Your task to perform on an android device: Go to battery settings Image 0: 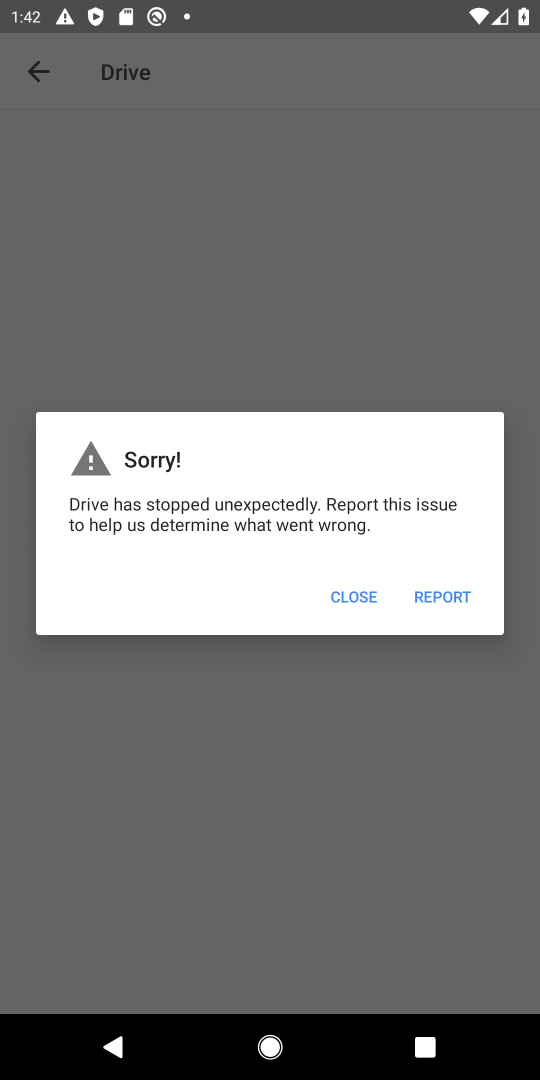
Step 0: press home button
Your task to perform on an android device: Go to battery settings Image 1: 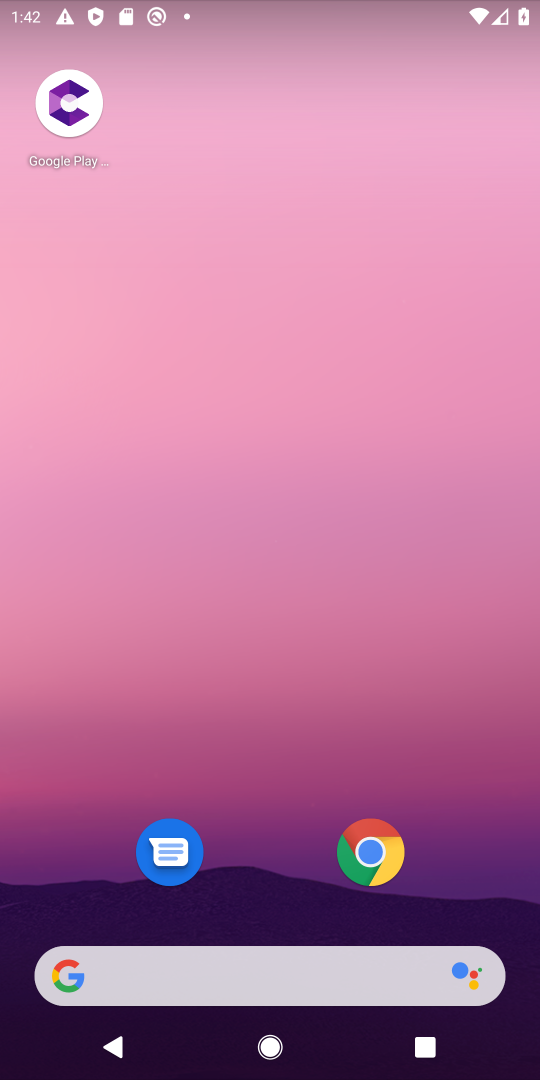
Step 1: drag from (231, 764) to (181, 305)
Your task to perform on an android device: Go to battery settings Image 2: 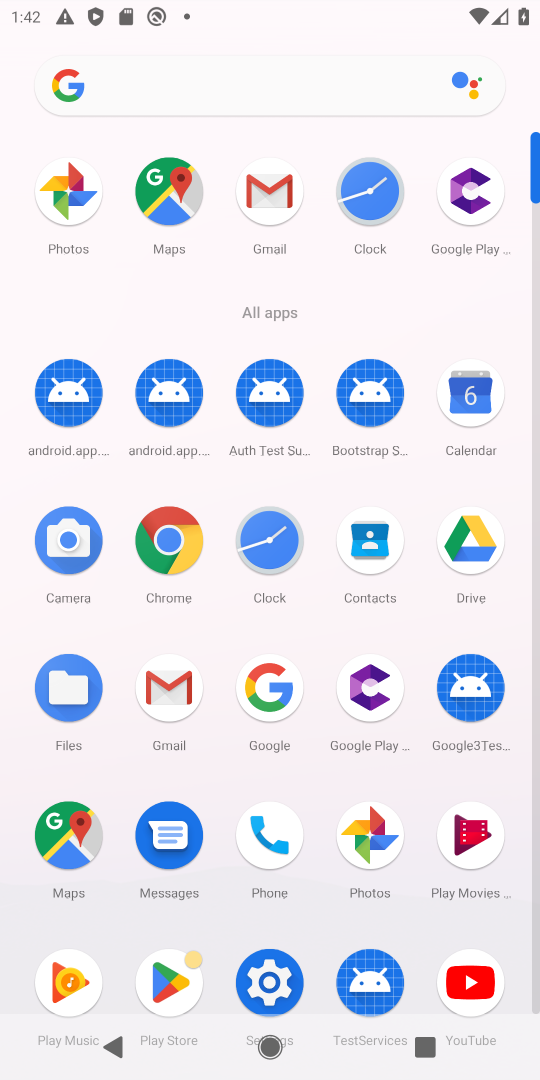
Step 2: drag from (266, 988) to (300, 352)
Your task to perform on an android device: Go to battery settings Image 3: 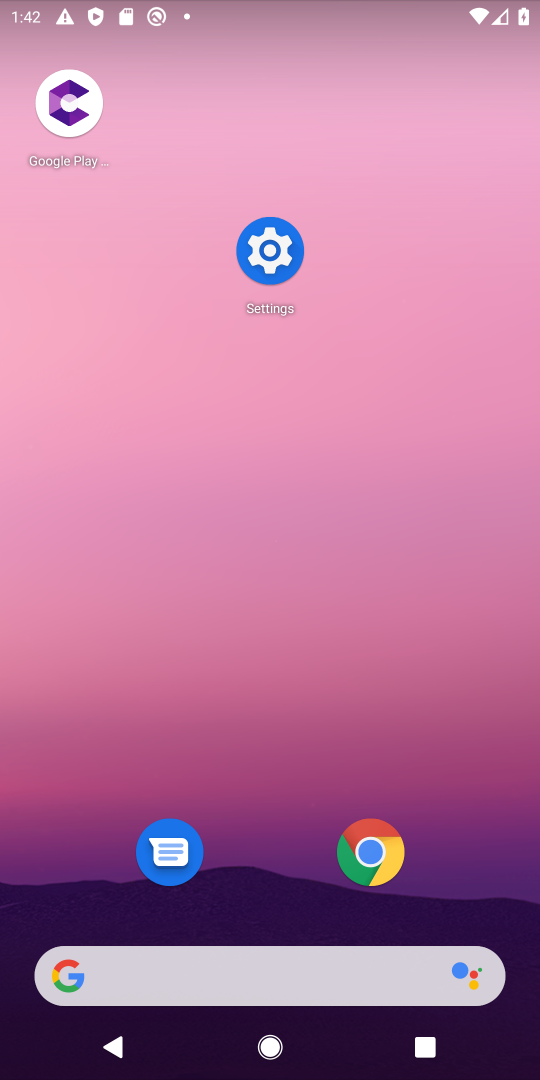
Step 3: click (266, 254)
Your task to perform on an android device: Go to battery settings Image 4: 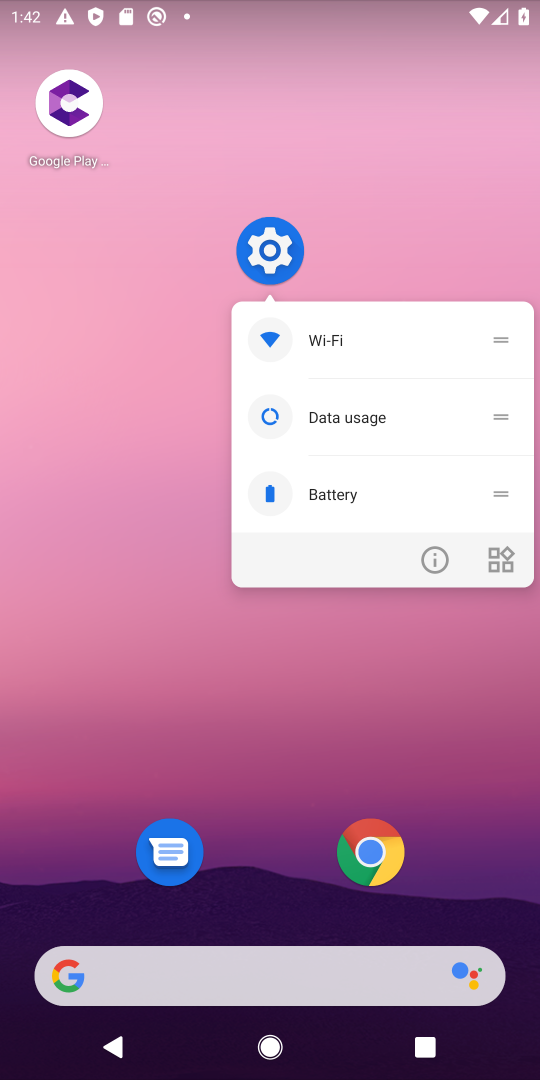
Step 4: click (266, 255)
Your task to perform on an android device: Go to battery settings Image 5: 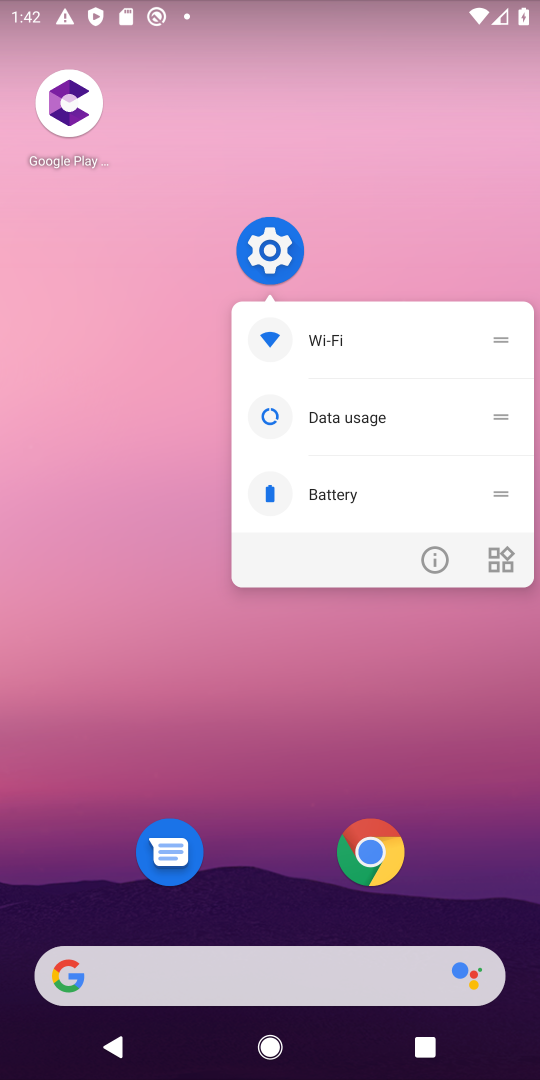
Step 5: click (266, 255)
Your task to perform on an android device: Go to battery settings Image 6: 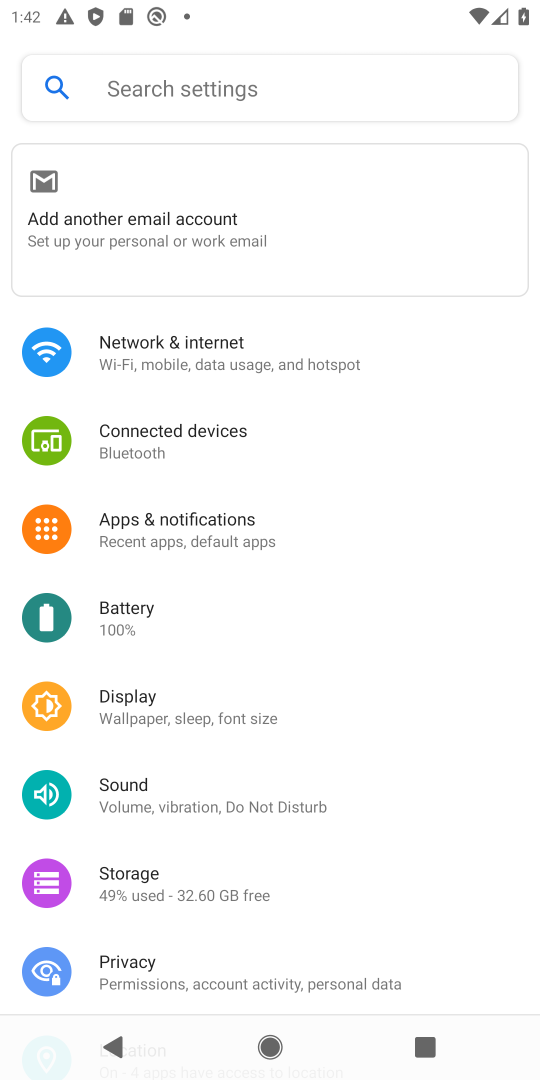
Step 6: drag from (260, 727) to (292, 218)
Your task to perform on an android device: Go to battery settings Image 7: 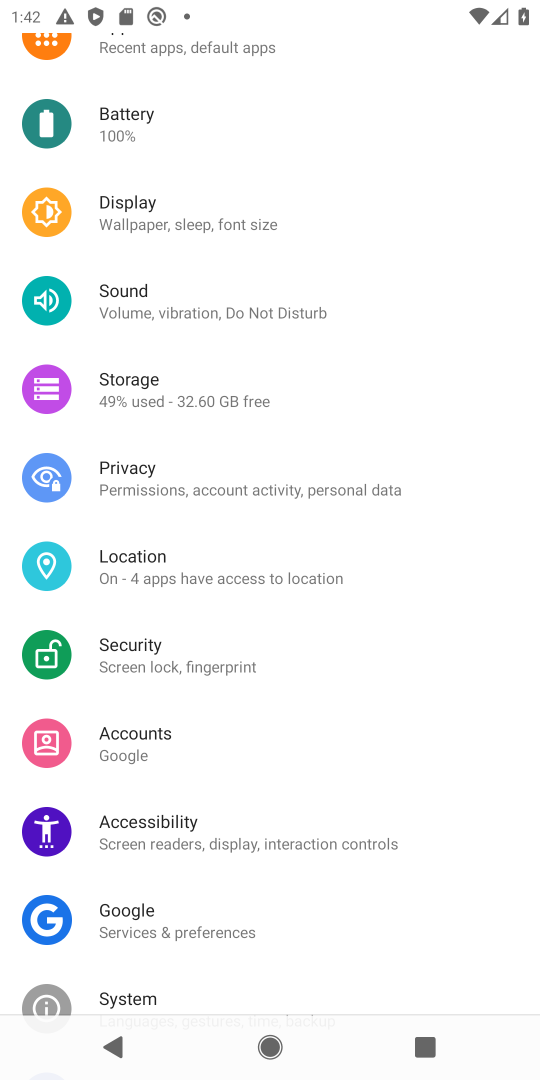
Step 7: click (126, 140)
Your task to perform on an android device: Go to battery settings Image 8: 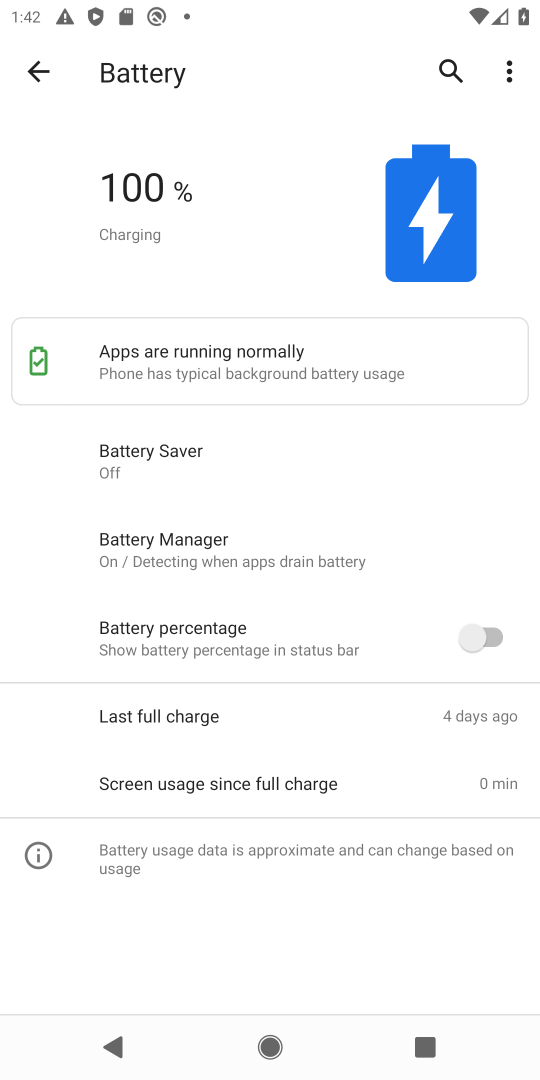
Step 8: task complete